Your task to perform on an android device: find photos in the google photos app Image 0: 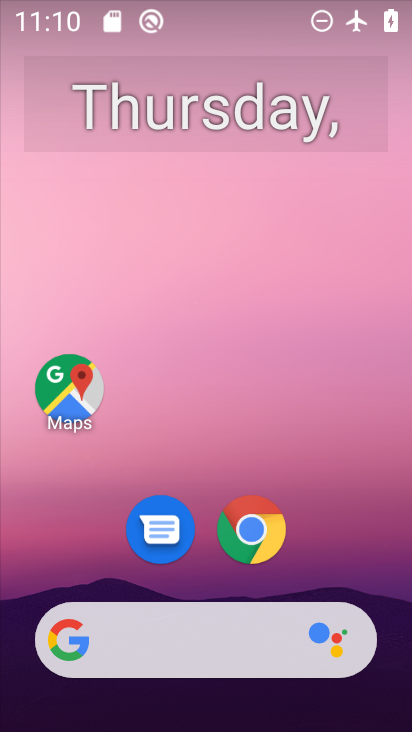
Step 0: drag from (203, 676) to (197, 78)
Your task to perform on an android device: find photos in the google photos app Image 1: 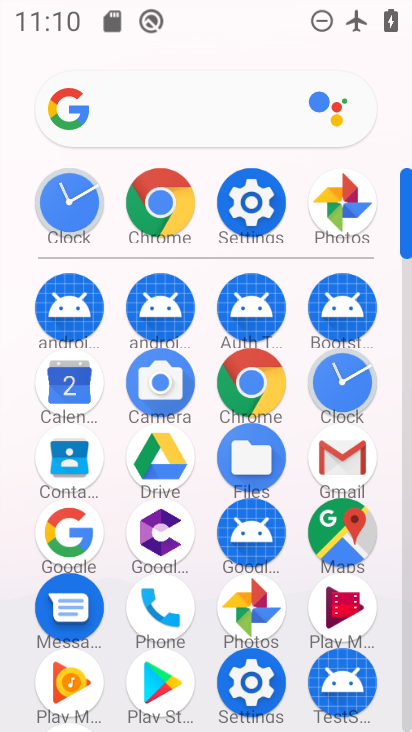
Step 1: click (259, 613)
Your task to perform on an android device: find photos in the google photos app Image 2: 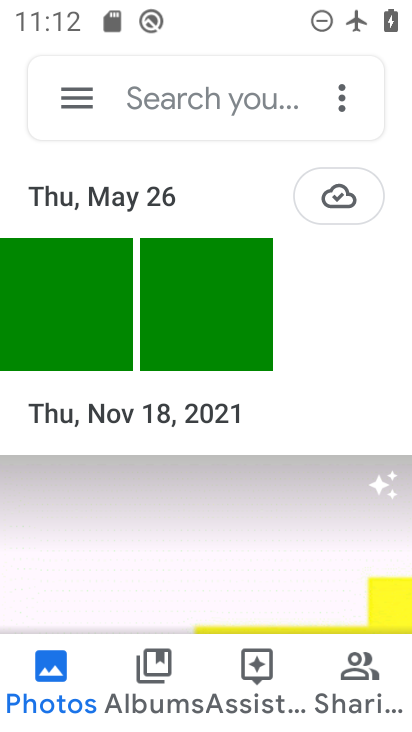
Step 2: task complete